Your task to perform on an android device: Open display settings Image 0: 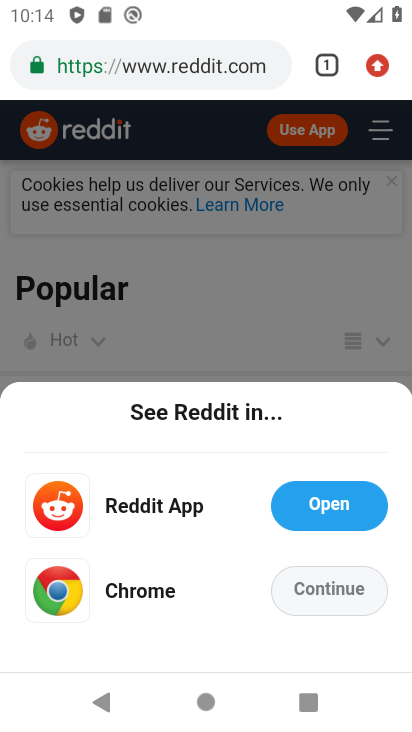
Step 0: press home button
Your task to perform on an android device: Open display settings Image 1: 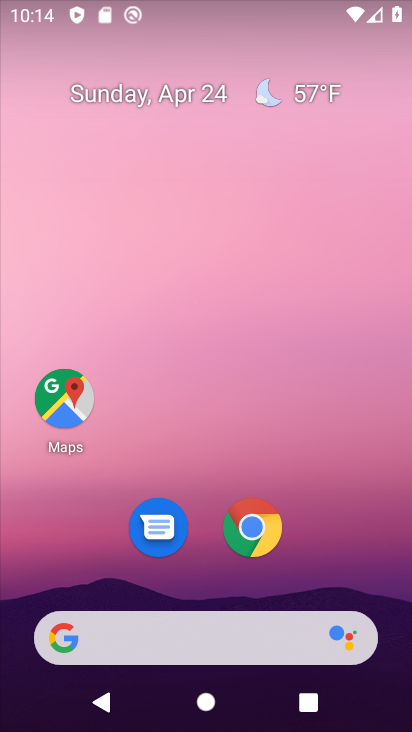
Step 1: drag from (275, 706) to (234, 34)
Your task to perform on an android device: Open display settings Image 2: 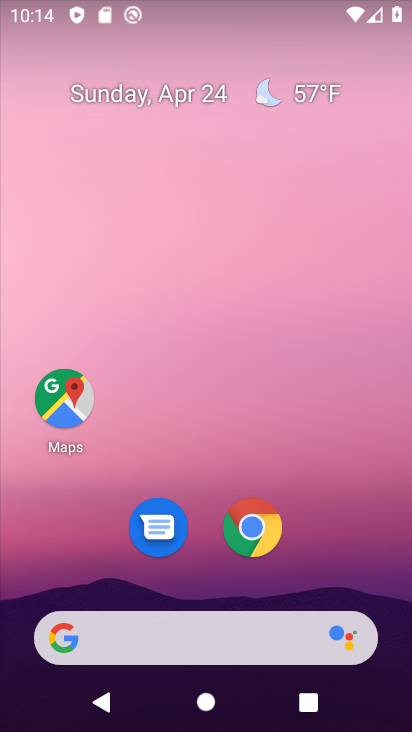
Step 2: drag from (271, 660) to (187, 10)
Your task to perform on an android device: Open display settings Image 3: 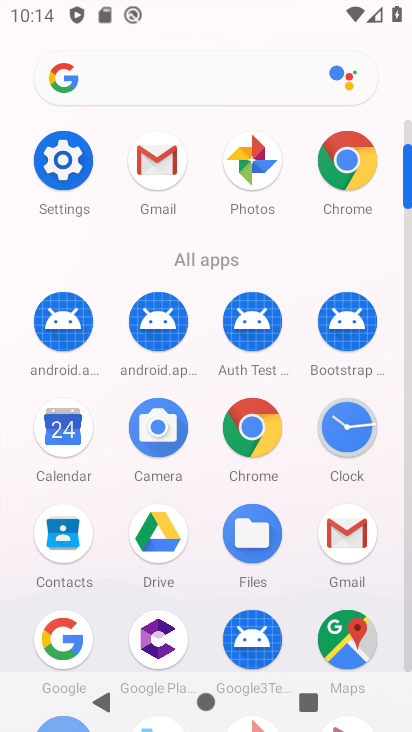
Step 3: click (68, 167)
Your task to perform on an android device: Open display settings Image 4: 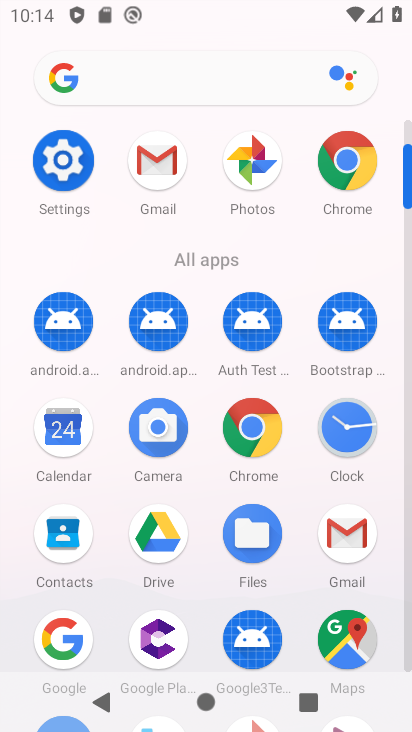
Step 4: click (68, 167)
Your task to perform on an android device: Open display settings Image 5: 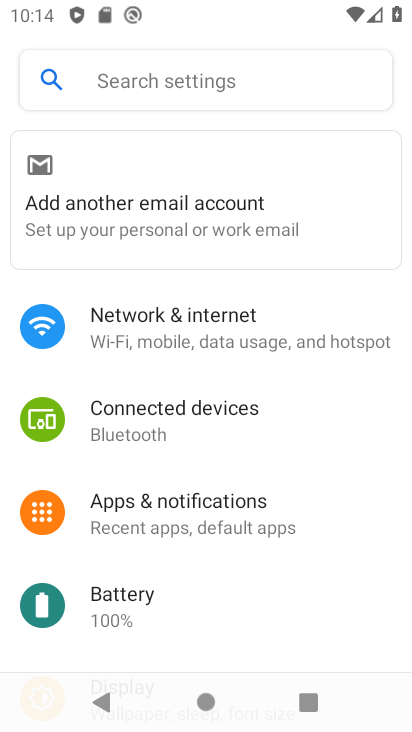
Step 5: drag from (191, 597) to (91, 134)
Your task to perform on an android device: Open display settings Image 6: 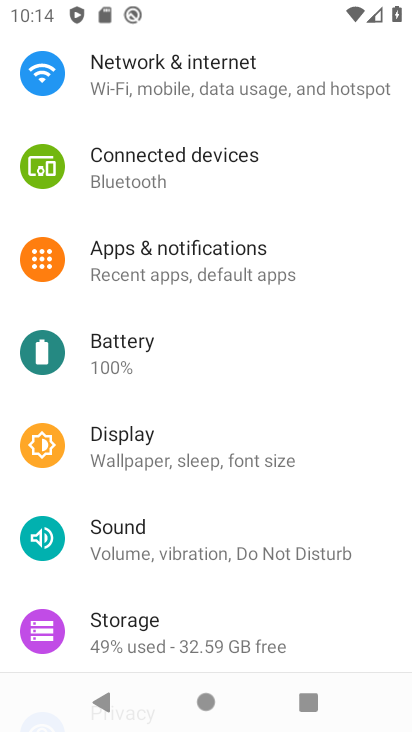
Step 6: click (130, 441)
Your task to perform on an android device: Open display settings Image 7: 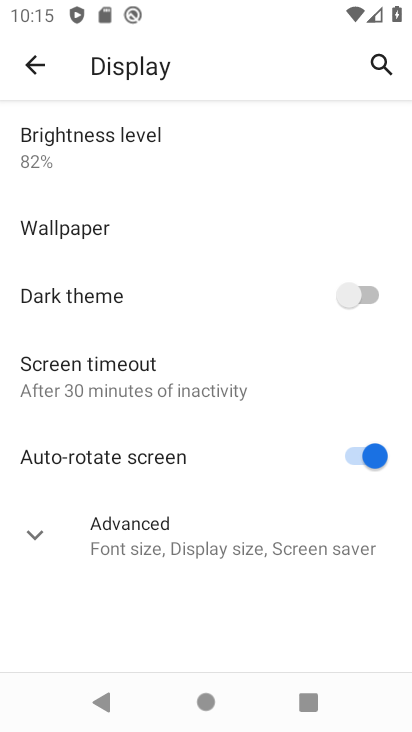
Step 7: task complete